Your task to perform on an android device: turn on wifi Image 0: 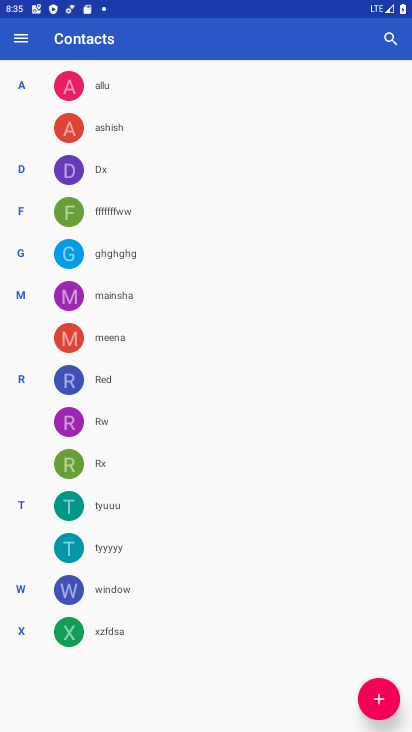
Step 0: drag from (211, 571) to (270, 303)
Your task to perform on an android device: turn on wifi Image 1: 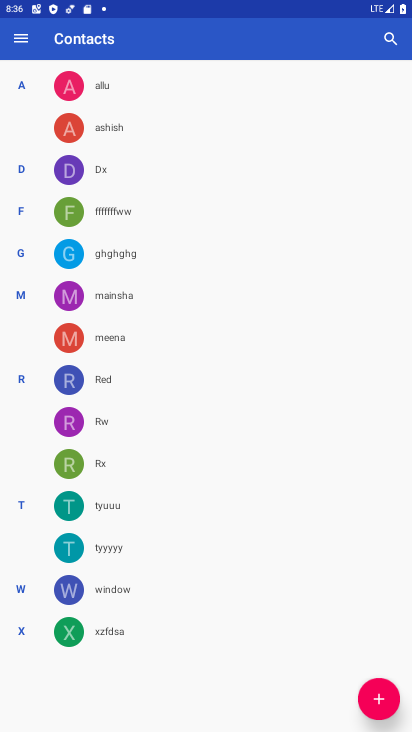
Step 1: drag from (208, 520) to (267, 283)
Your task to perform on an android device: turn on wifi Image 2: 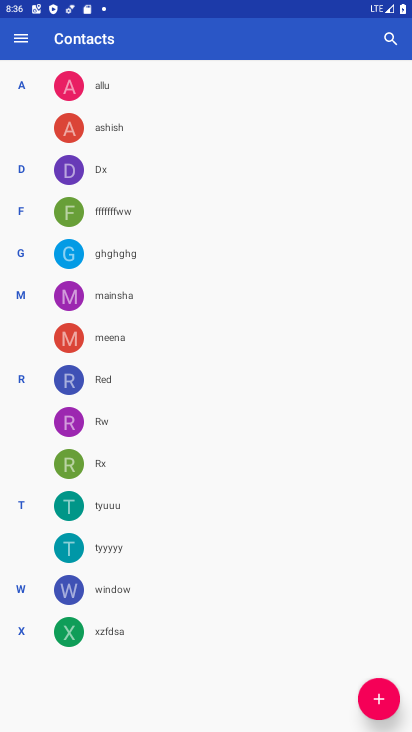
Step 2: drag from (124, 593) to (257, 154)
Your task to perform on an android device: turn on wifi Image 3: 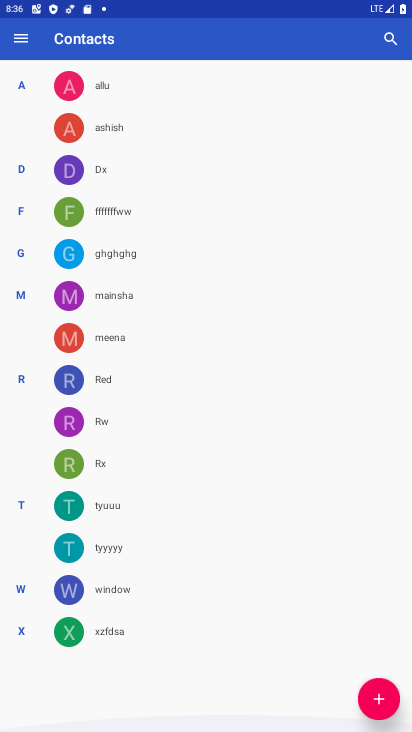
Step 3: drag from (235, 179) to (204, 539)
Your task to perform on an android device: turn on wifi Image 4: 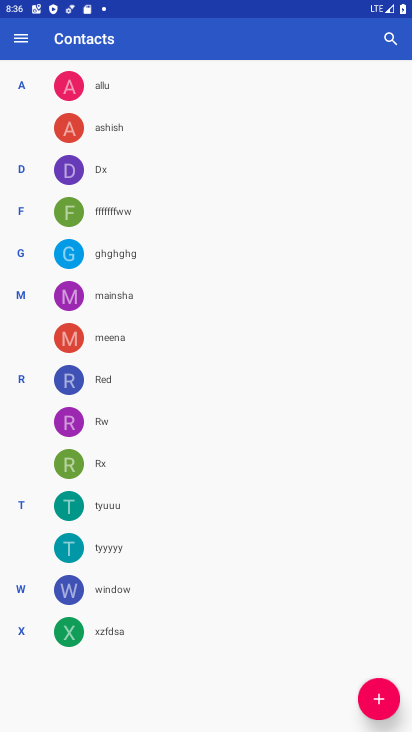
Step 4: press home button
Your task to perform on an android device: turn on wifi Image 5: 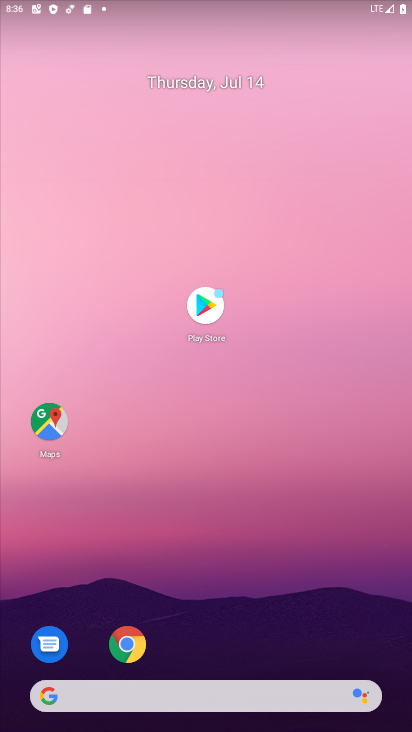
Step 5: drag from (222, 650) to (263, 141)
Your task to perform on an android device: turn on wifi Image 6: 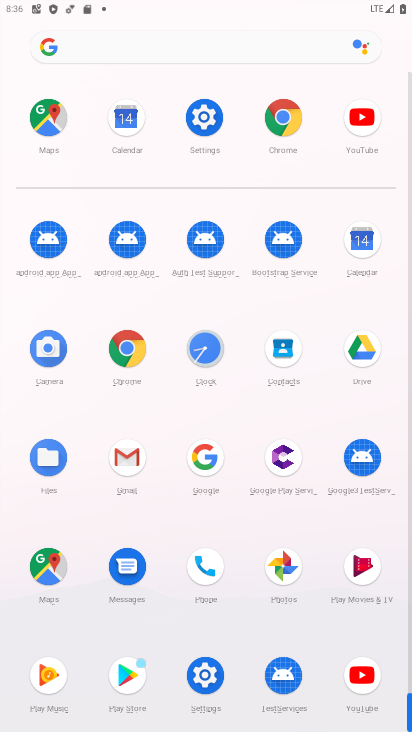
Step 6: click (200, 118)
Your task to perform on an android device: turn on wifi Image 7: 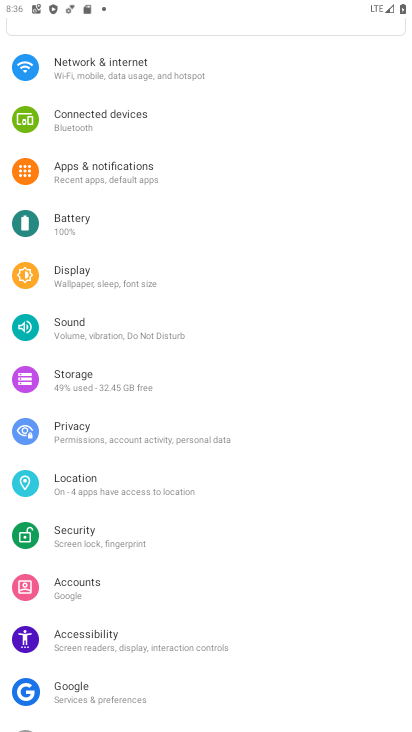
Step 7: drag from (171, 139) to (211, 577)
Your task to perform on an android device: turn on wifi Image 8: 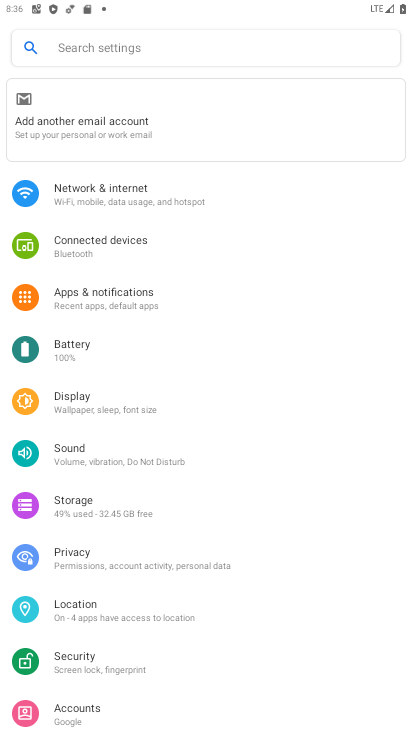
Step 8: click (151, 196)
Your task to perform on an android device: turn on wifi Image 9: 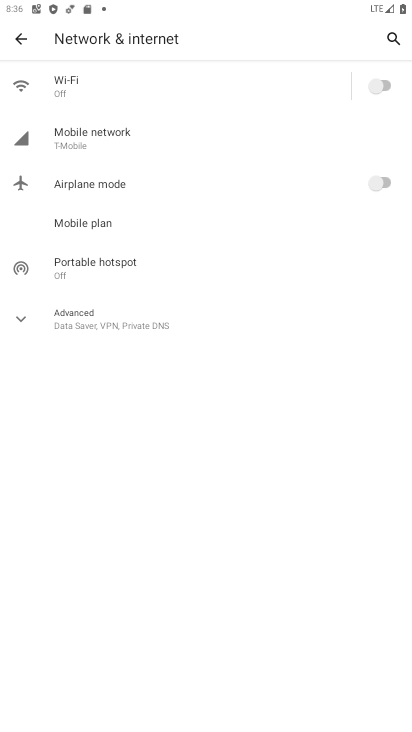
Step 9: click (373, 87)
Your task to perform on an android device: turn on wifi Image 10: 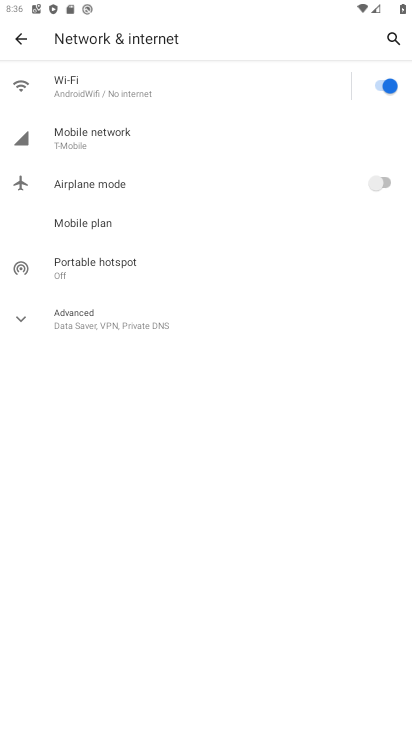
Step 10: task complete